Your task to perform on an android device: install app "Facebook" Image 0: 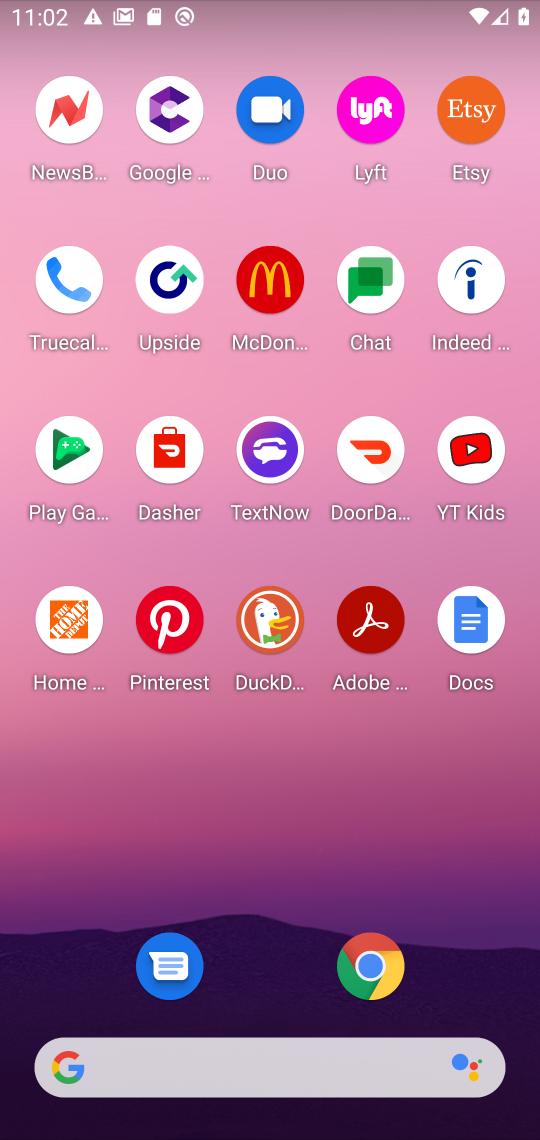
Step 0: drag from (236, 887) to (241, 2)
Your task to perform on an android device: install app "Facebook" Image 1: 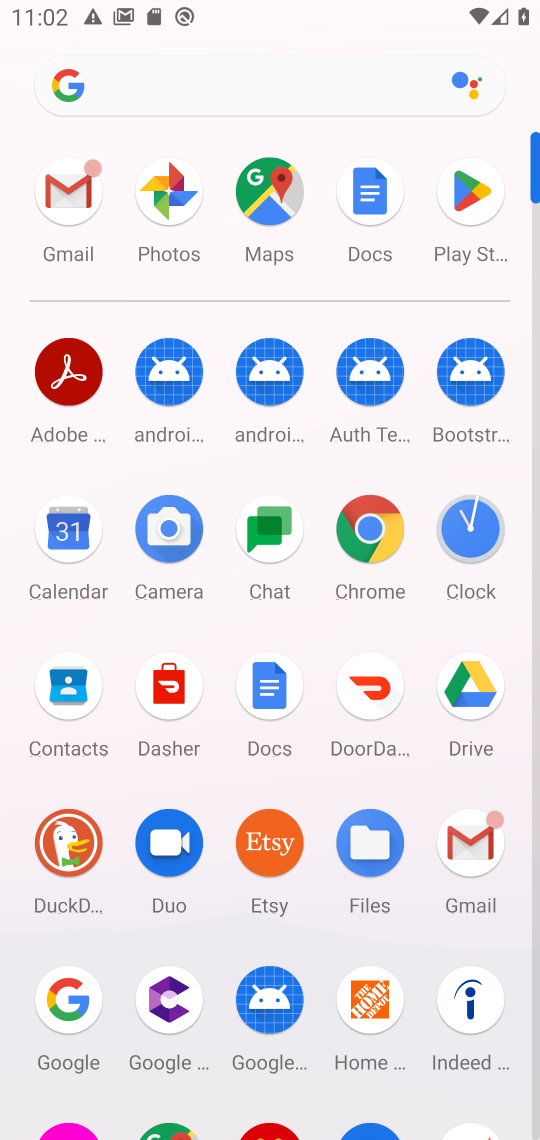
Step 1: click (479, 203)
Your task to perform on an android device: install app "Facebook" Image 2: 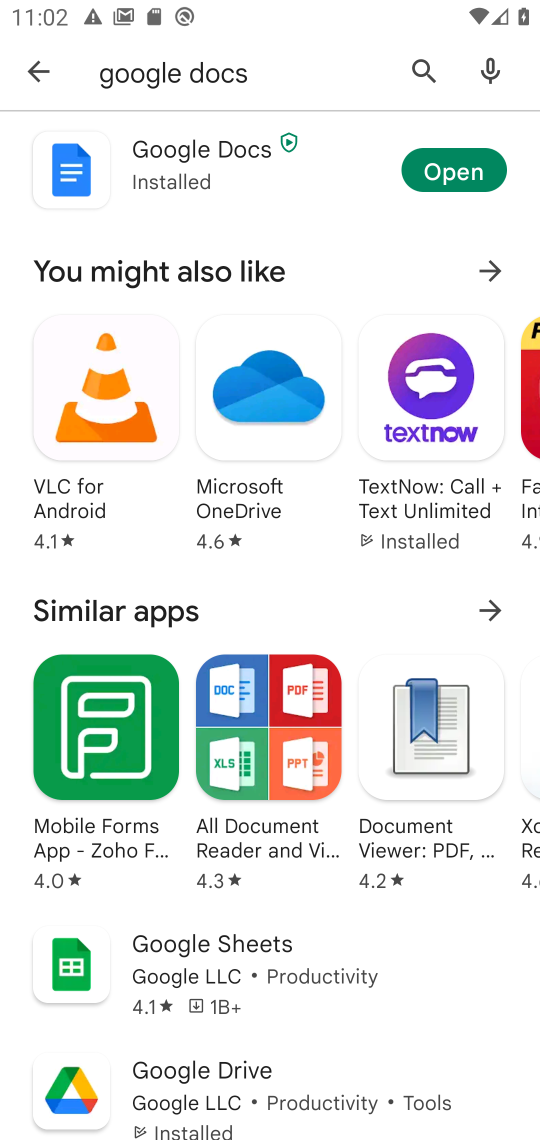
Step 2: click (227, 82)
Your task to perform on an android device: install app "Facebook" Image 3: 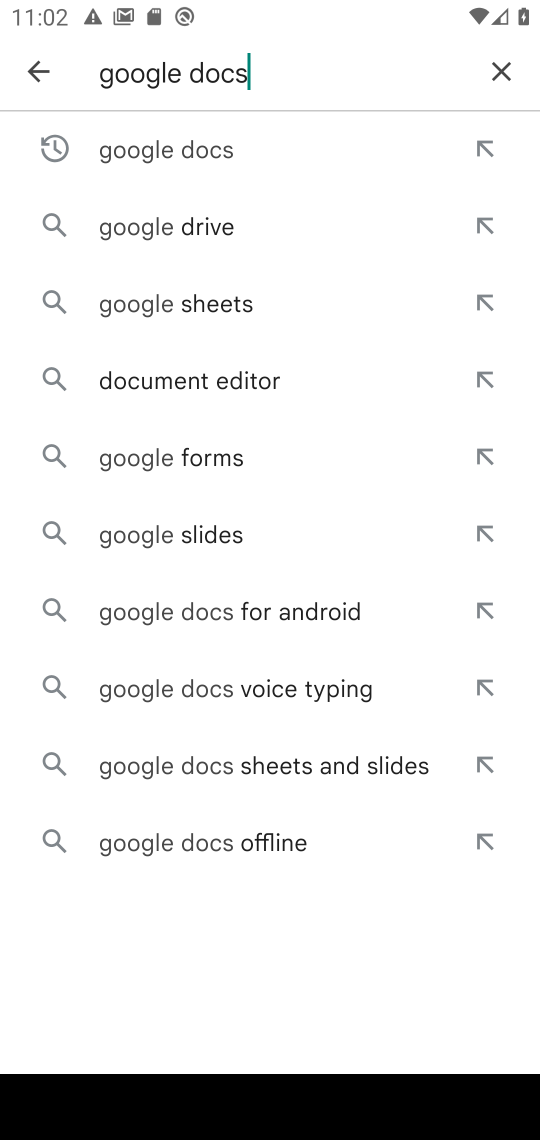
Step 3: click (505, 59)
Your task to perform on an android device: install app "Facebook" Image 4: 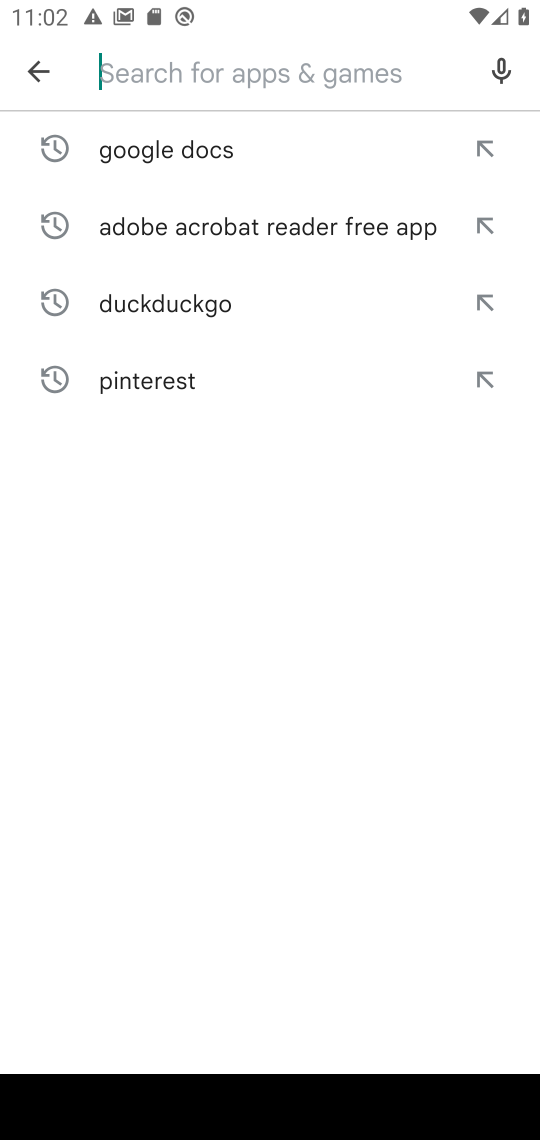
Step 4: type "facebook"
Your task to perform on an android device: install app "Facebook" Image 5: 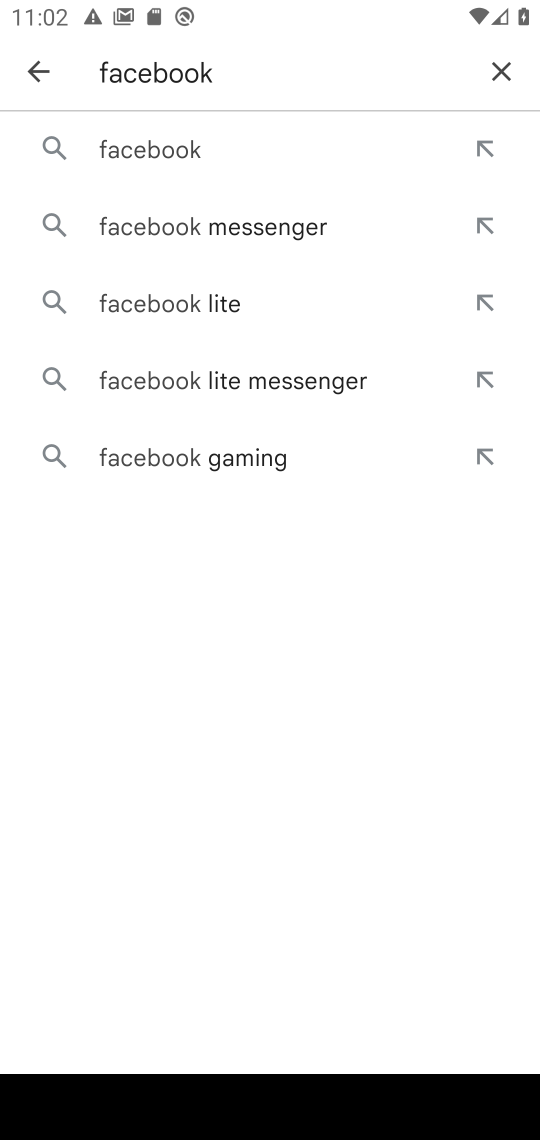
Step 5: click (169, 155)
Your task to perform on an android device: install app "Facebook" Image 6: 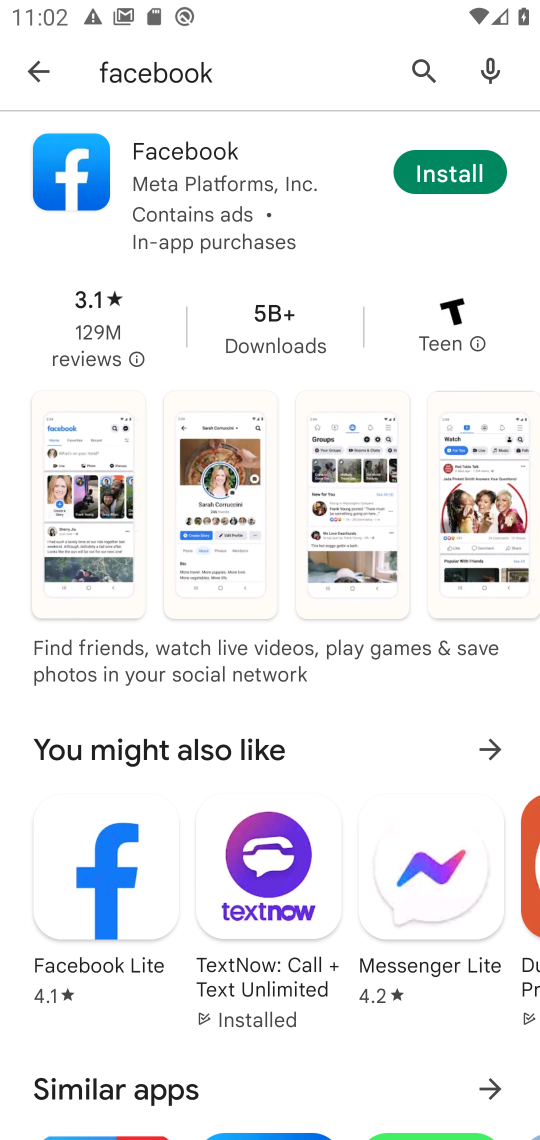
Step 6: click (447, 183)
Your task to perform on an android device: install app "Facebook" Image 7: 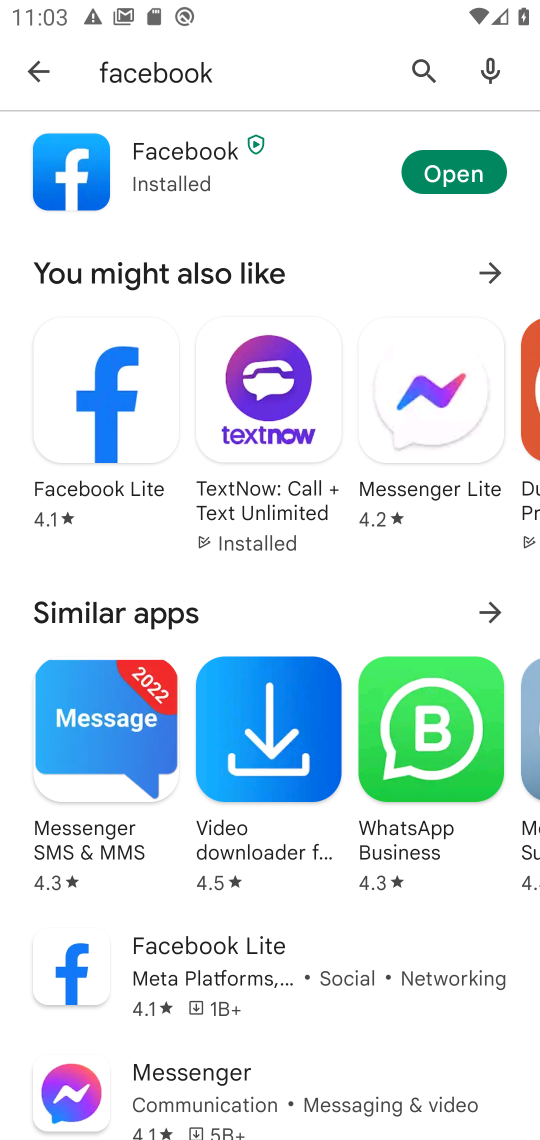
Step 7: task complete